Your task to perform on an android device: Open calendar and show me the first week of next month Image 0: 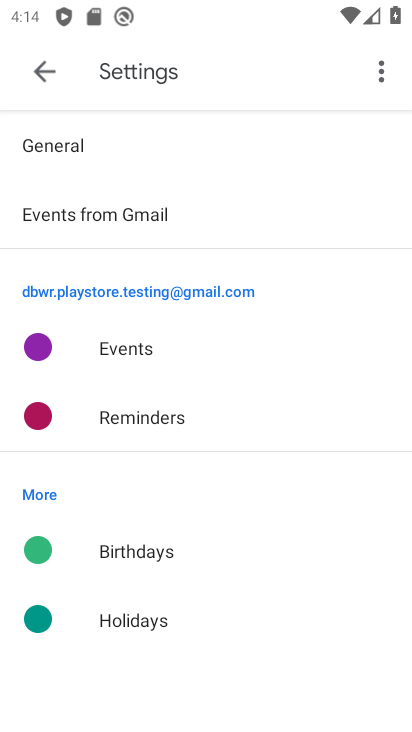
Step 0: press home button
Your task to perform on an android device: Open calendar and show me the first week of next month Image 1: 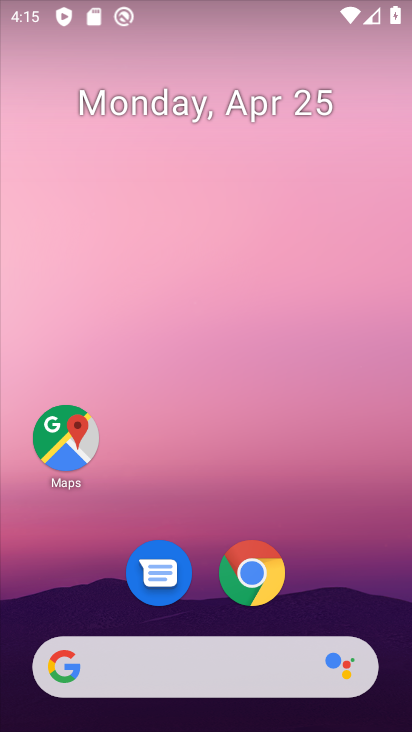
Step 1: drag from (339, 560) to (317, 9)
Your task to perform on an android device: Open calendar and show me the first week of next month Image 2: 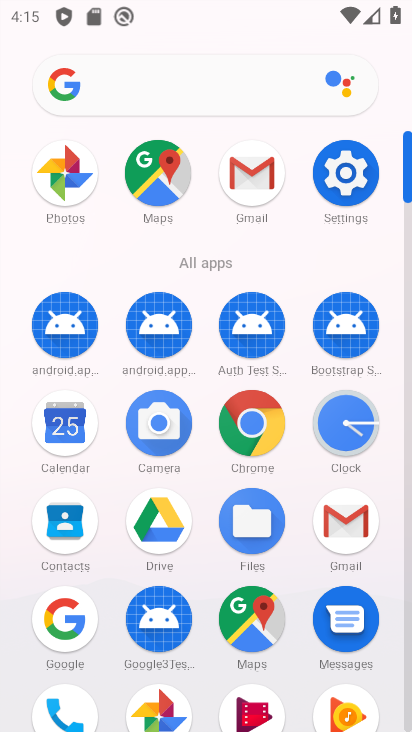
Step 2: click (83, 428)
Your task to perform on an android device: Open calendar and show me the first week of next month Image 3: 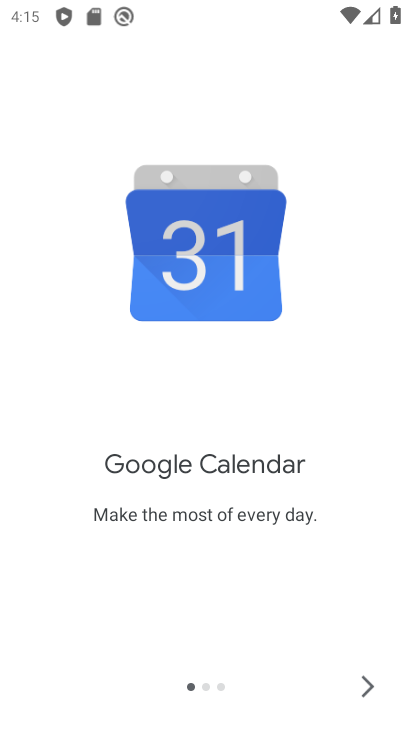
Step 3: click (366, 679)
Your task to perform on an android device: Open calendar and show me the first week of next month Image 4: 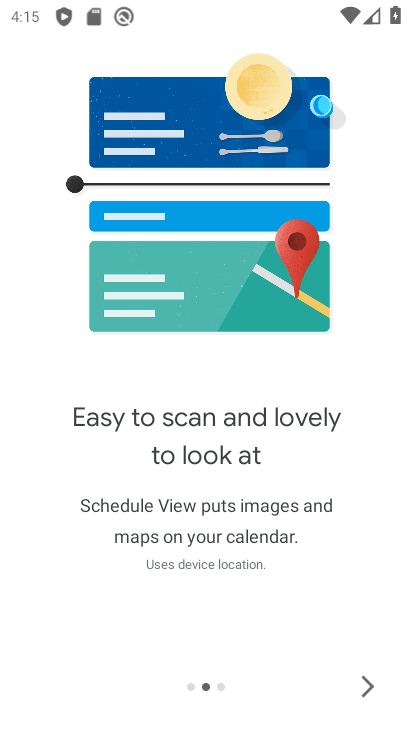
Step 4: click (366, 679)
Your task to perform on an android device: Open calendar and show me the first week of next month Image 5: 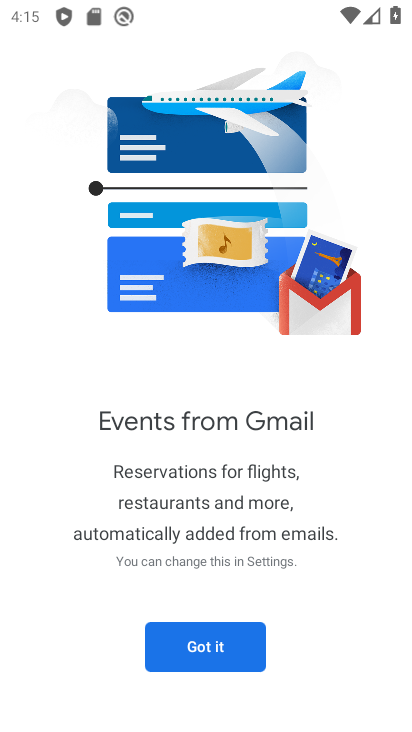
Step 5: click (241, 630)
Your task to perform on an android device: Open calendar and show me the first week of next month Image 6: 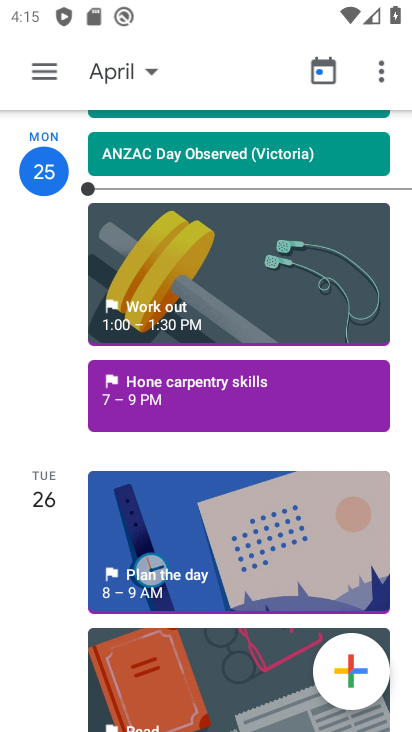
Step 6: click (49, 64)
Your task to perform on an android device: Open calendar and show me the first week of next month Image 7: 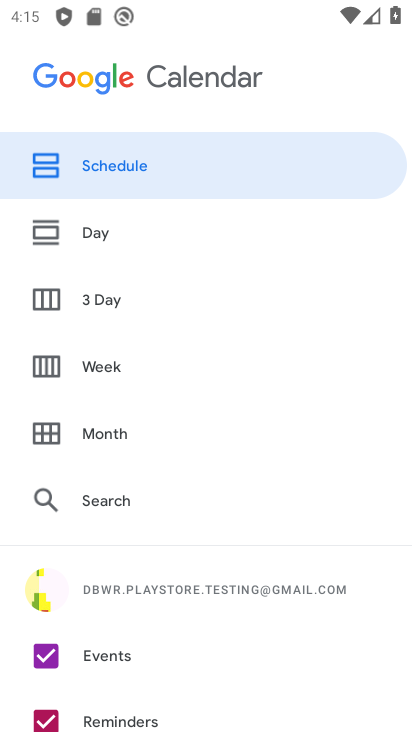
Step 7: click (112, 359)
Your task to perform on an android device: Open calendar and show me the first week of next month Image 8: 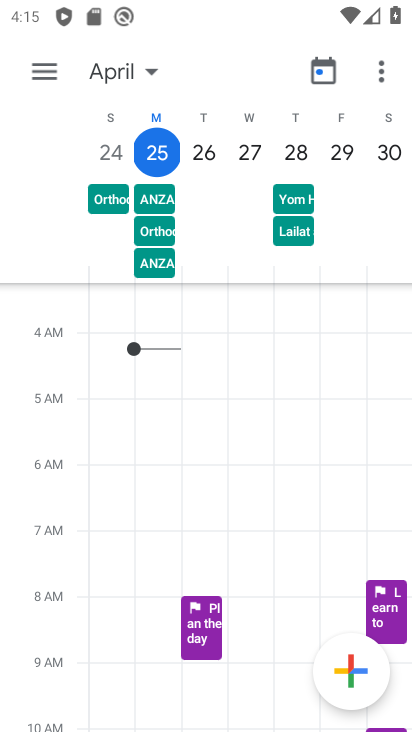
Step 8: click (149, 68)
Your task to perform on an android device: Open calendar and show me the first week of next month Image 9: 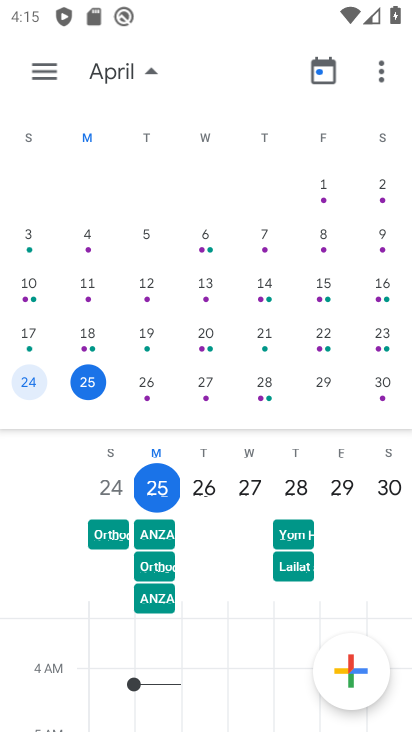
Step 9: drag from (217, 266) to (25, 243)
Your task to perform on an android device: Open calendar and show me the first week of next month Image 10: 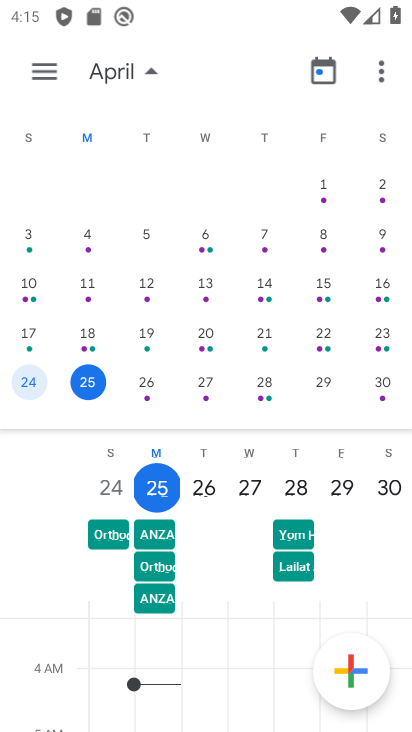
Step 10: click (0, 321)
Your task to perform on an android device: Open calendar and show me the first week of next month Image 11: 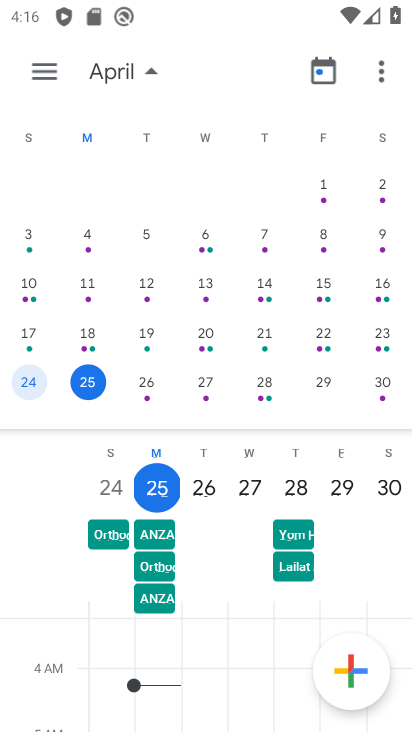
Step 11: drag from (383, 264) to (1, 199)
Your task to perform on an android device: Open calendar and show me the first week of next month Image 12: 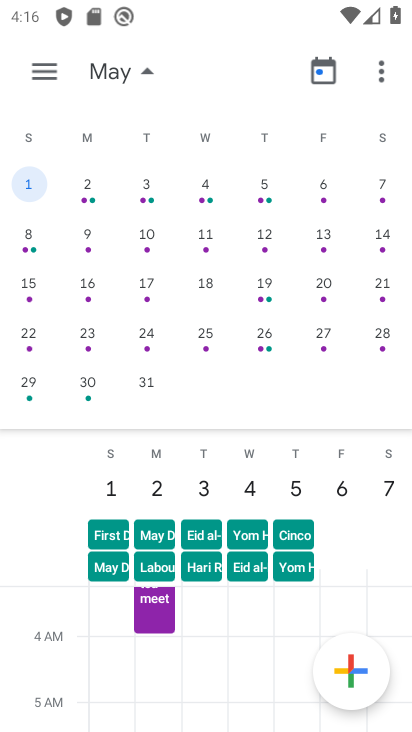
Step 12: click (147, 188)
Your task to perform on an android device: Open calendar and show me the first week of next month Image 13: 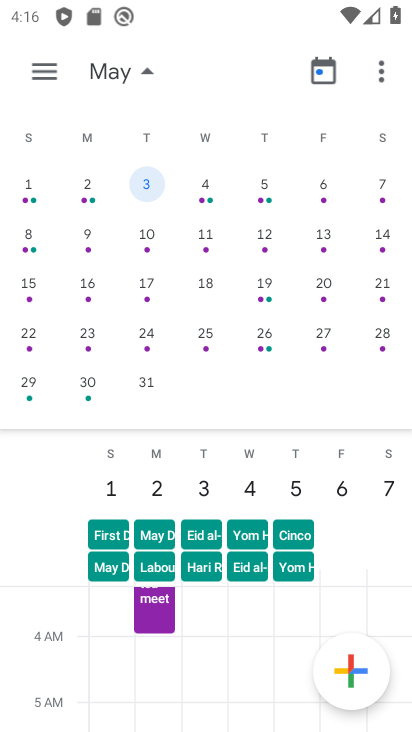
Step 13: task complete